Your task to perform on an android device: clear all cookies in the chrome app Image 0: 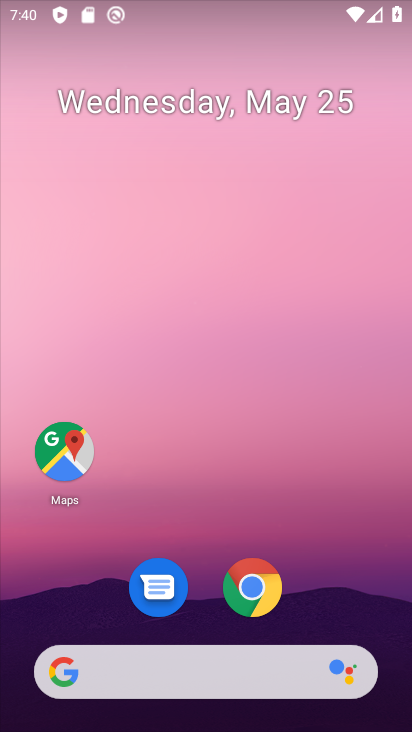
Step 0: click (261, 588)
Your task to perform on an android device: clear all cookies in the chrome app Image 1: 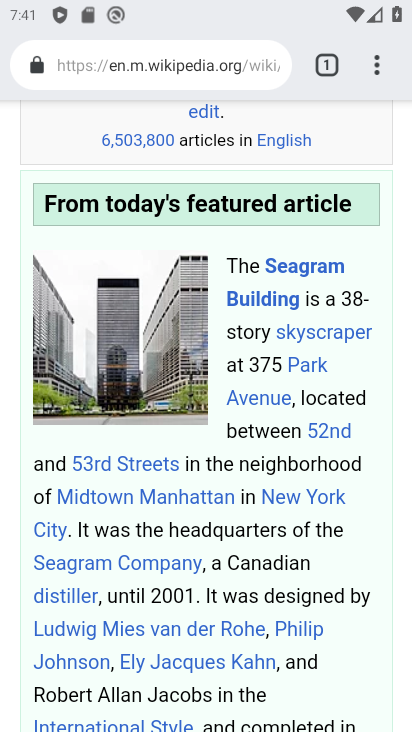
Step 1: drag from (380, 67) to (134, 626)
Your task to perform on an android device: clear all cookies in the chrome app Image 2: 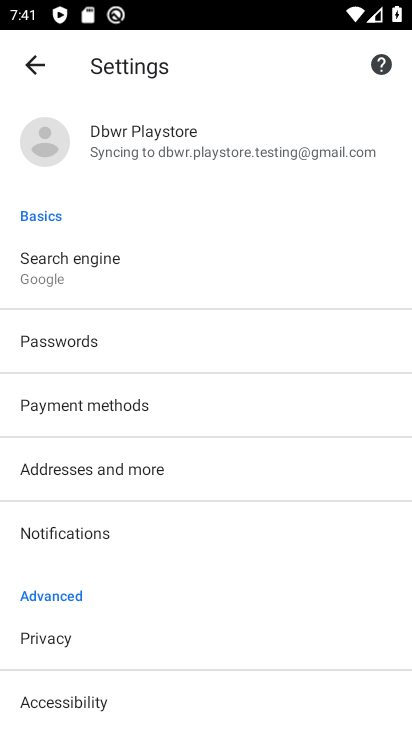
Step 2: drag from (165, 727) to (183, 439)
Your task to perform on an android device: clear all cookies in the chrome app Image 3: 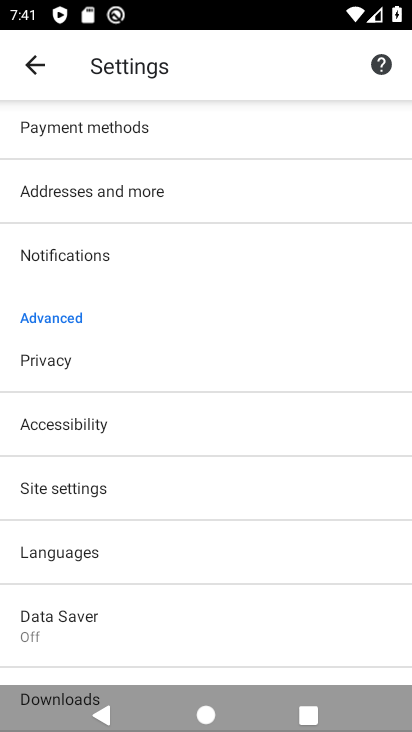
Step 3: click (58, 352)
Your task to perform on an android device: clear all cookies in the chrome app Image 4: 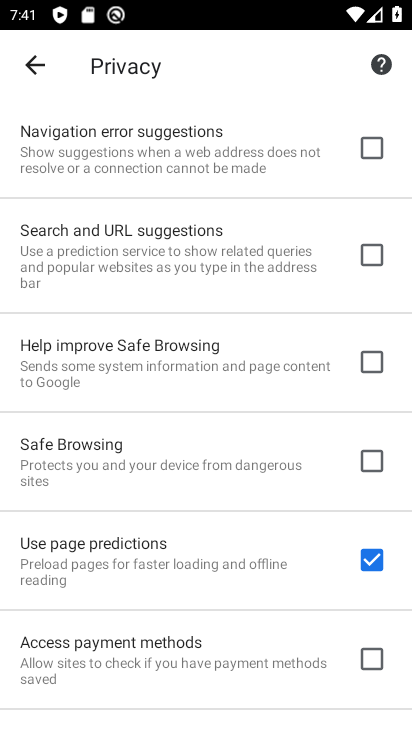
Step 4: drag from (243, 616) to (270, 115)
Your task to perform on an android device: clear all cookies in the chrome app Image 5: 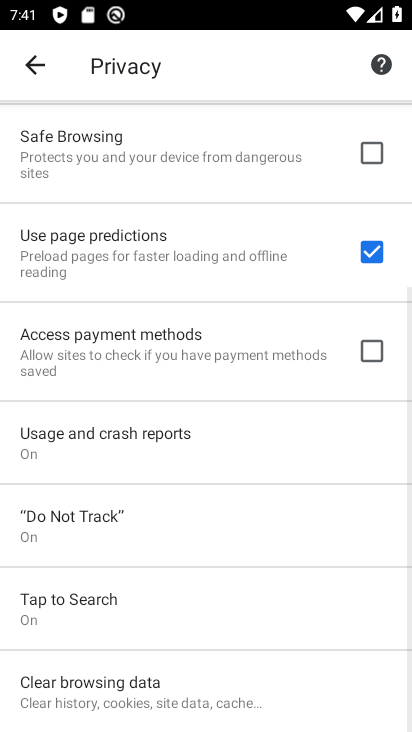
Step 5: drag from (275, 631) to (258, 258)
Your task to perform on an android device: clear all cookies in the chrome app Image 6: 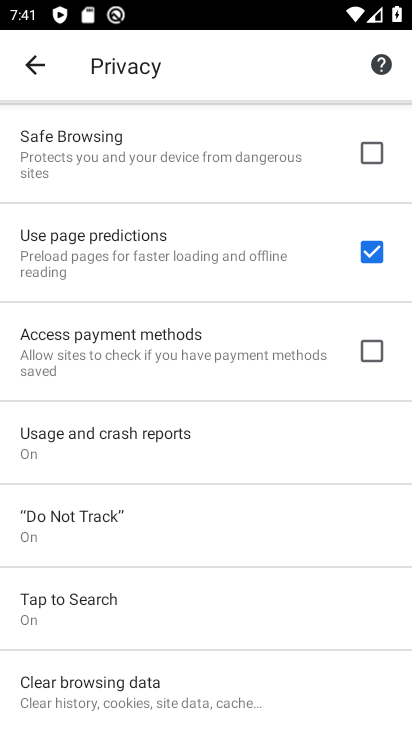
Step 6: click (138, 682)
Your task to perform on an android device: clear all cookies in the chrome app Image 7: 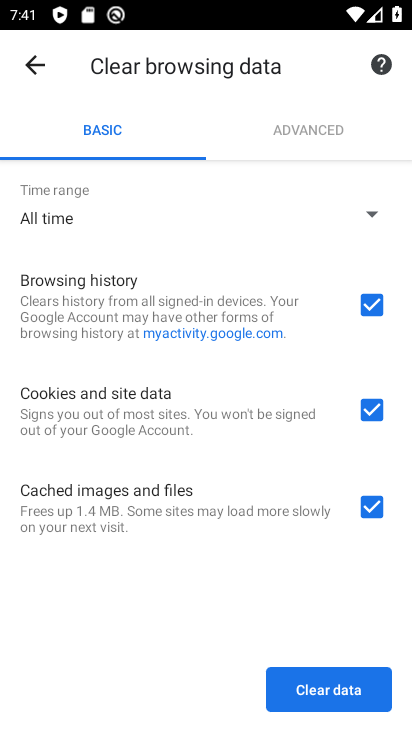
Step 7: click (338, 697)
Your task to perform on an android device: clear all cookies in the chrome app Image 8: 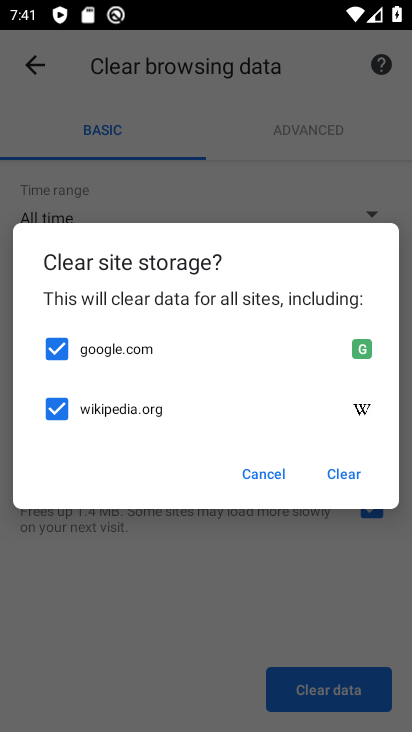
Step 8: click (356, 473)
Your task to perform on an android device: clear all cookies in the chrome app Image 9: 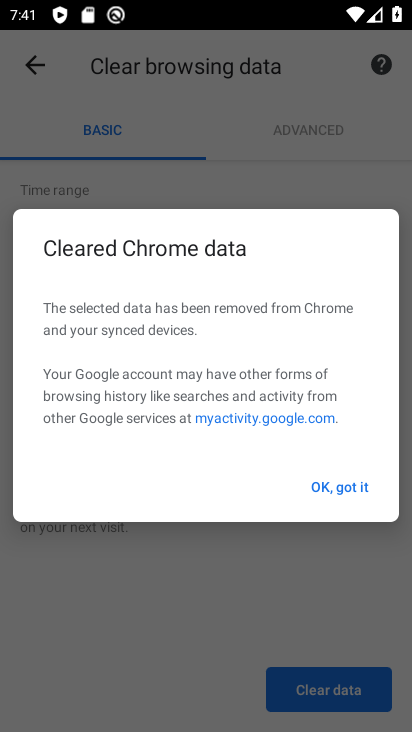
Step 9: click (344, 494)
Your task to perform on an android device: clear all cookies in the chrome app Image 10: 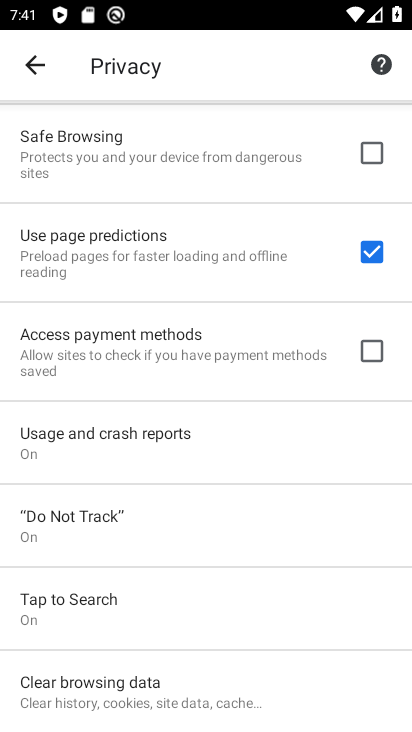
Step 10: task complete